Your task to perform on an android device: turn on sleep mode Image 0: 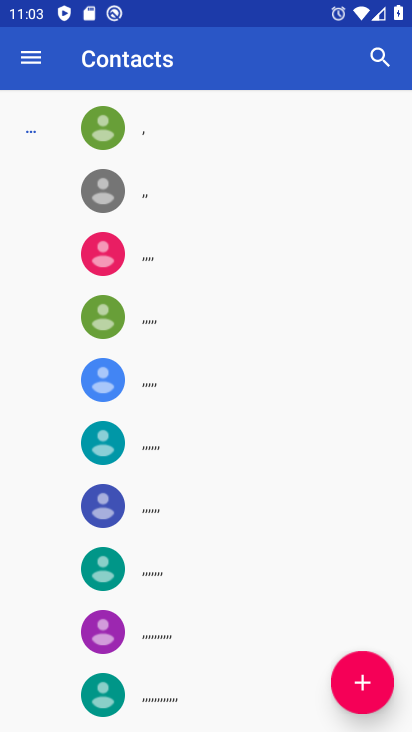
Step 0: press back button
Your task to perform on an android device: turn on sleep mode Image 1: 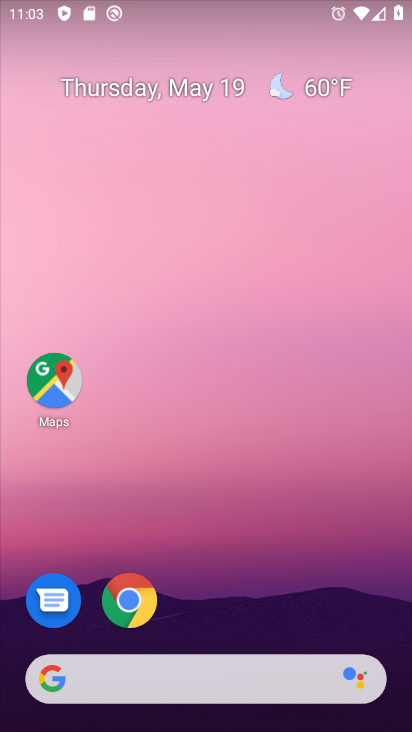
Step 1: drag from (357, 591) to (347, 282)
Your task to perform on an android device: turn on sleep mode Image 2: 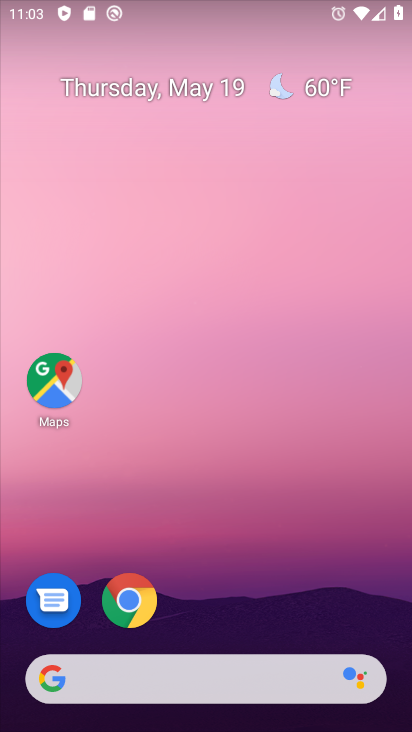
Step 2: drag from (329, 617) to (345, 254)
Your task to perform on an android device: turn on sleep mode Image 3: 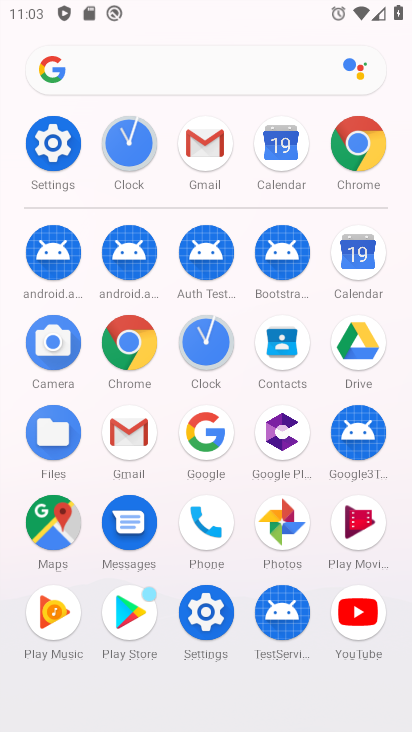
Step 3: click (208, 632)
Your task to perform on an android device: turn on sleep mode Image 4: 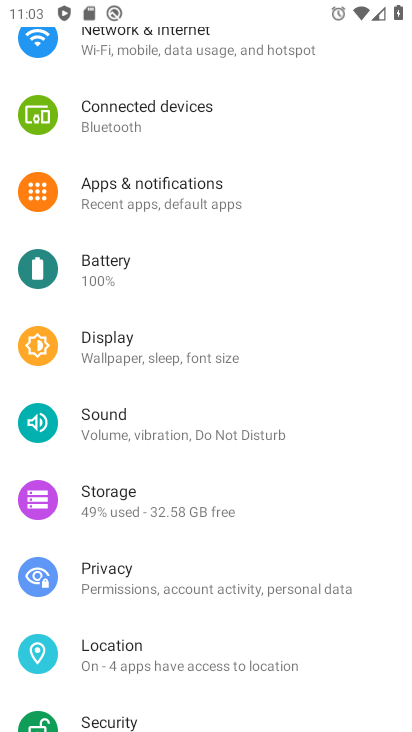
Step 4: drag from (367, 631) to (342, 463)
Your task to perform on an android device: turn on sleep mode Image 5: 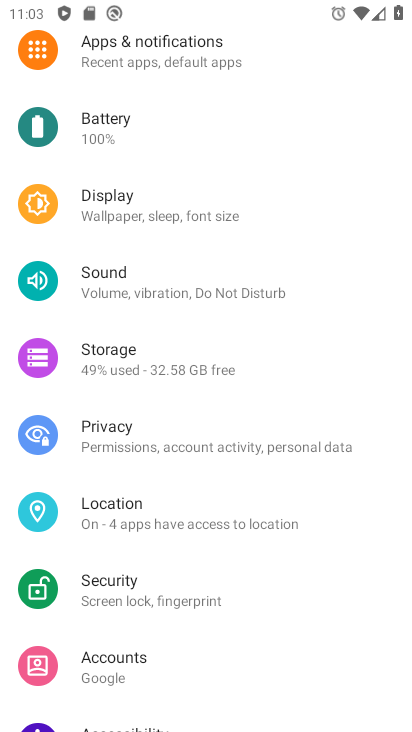
Step 5: drag from (367, 618) to (362, 512)
Your task to perform on an android device: turn on sleep mode Image 6: 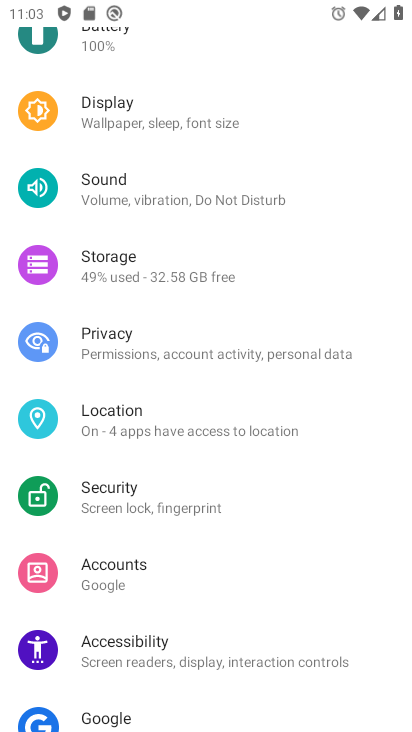
Step 6: drag from (341, 649) to (348, 539)
Your task to perform on an android device: turn on sleep mode Image 7: 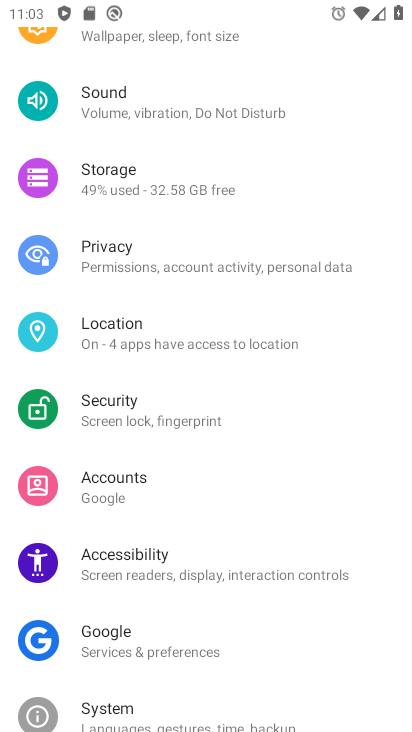
Step 7: drag from (365, 687) to (370, 591)
Your task to perform on an android device: turn on sleep mode Image 8: 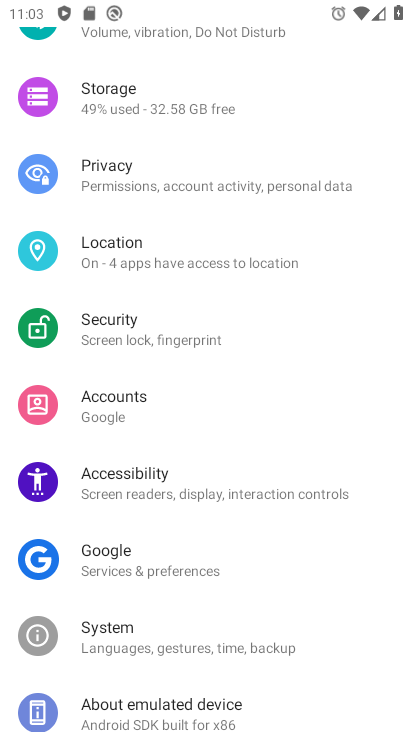
Step 8: drag from (365, 683) to (369, 589)
Your task to perform on an android device: turn on sleep mode Image 9: 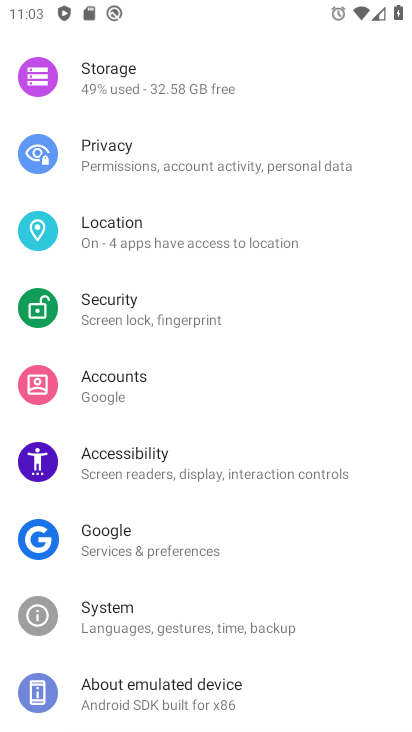
Step 9: drag from (338, 414) to (341, 498)
Your task to perform on an android device: turn on sleep mode Image 10: 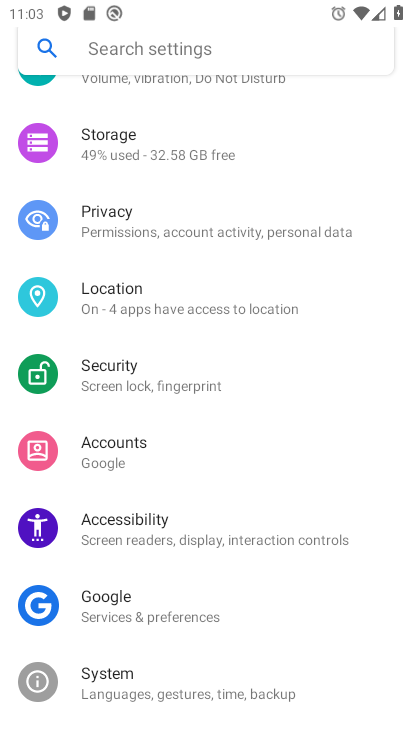
Step 10: drag from (328, 410) to (338, 467)
Your task to perform on an android device: turn on sleep mode Image 11: 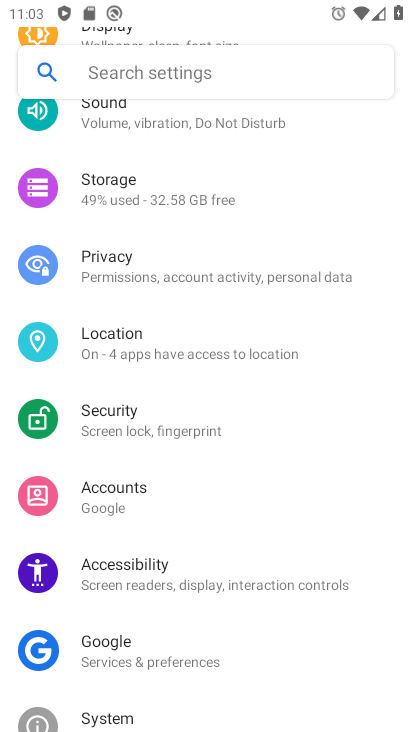
Step 11: drag from (334, 427) to (339, 465)
Your task to perform on an android device: turn on sleep mode Image 12: 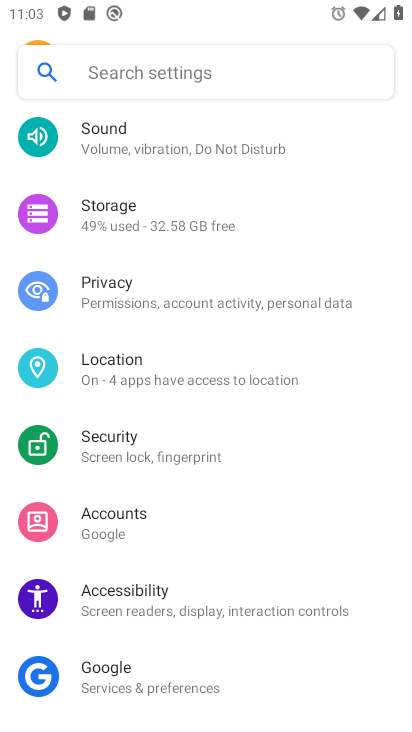
Step 12: click (338, 460)
Your task to perform on an android device: turn on sleep mode Image 13: 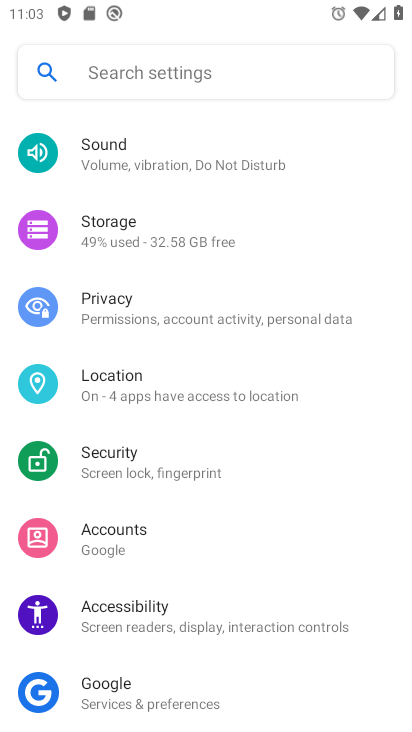
Step 13: drag from (328, 403) to (344, 496)
Your task to perform on an android device: turn on sleep mode Image 14: 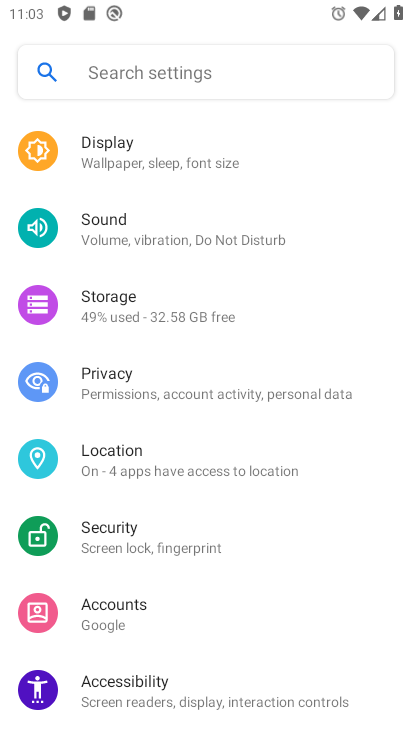
Step 14: drag from (345, 377) to (352, 431)
Your task to perform on an android device: turn on sleep mode Image 15: 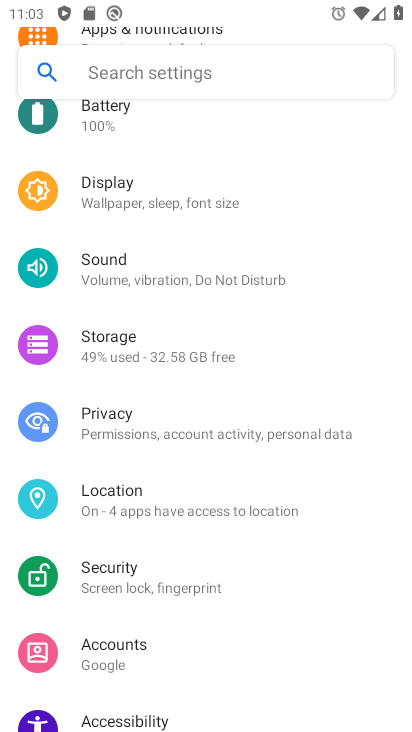
Step 15: drag from (350, 373) to (350, 437)
Your task to perform on an android device: turn on sleep mode Image 16: 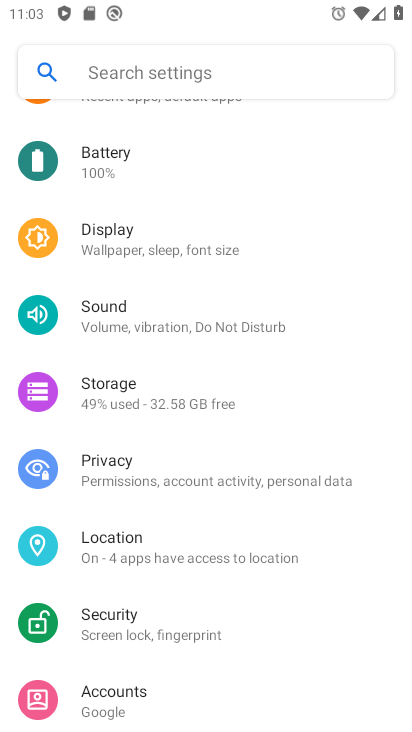
Step 16: drag from (341, 390) to (341, 426)
Your task to perform on an android device: turn on sleep mode Image 17: 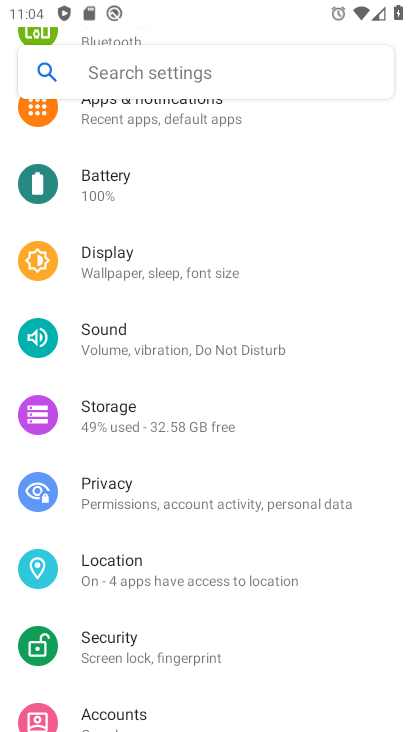
Step 17: drag from (328, 358) to (345, 452)
Your task to perform on an android device: turn on sleep mode Image 18: 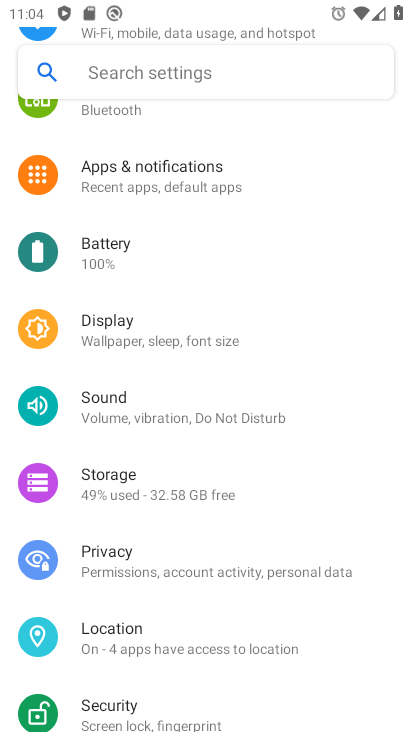
Step 18: drag from (323, 361) to (331, 397)
Your task to perform on an android device: turn on sleep mode Image 19: 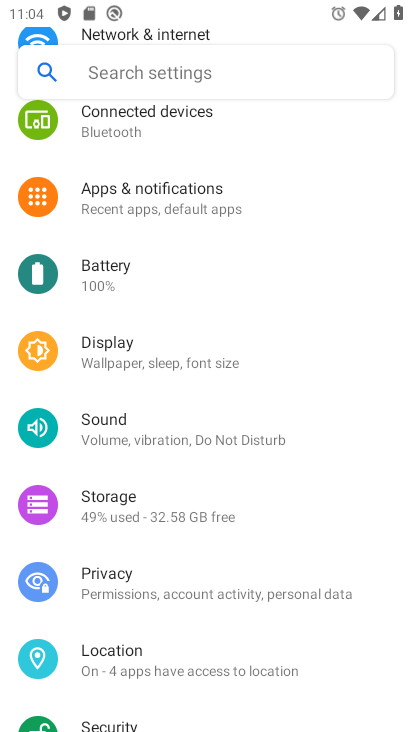
Step 19: drag from (334, 357) to (346, 413)
Your task to perform on an android device: turn on sleep mode Image 20: 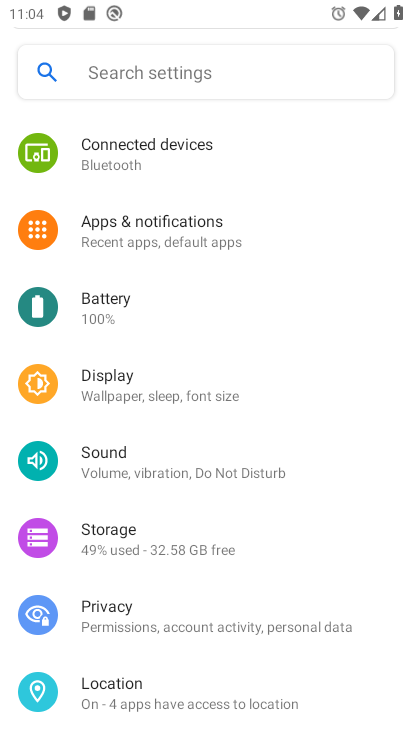
Step 20: drag from (352, 364) to (370, 459)
Your task to perform on an android device: turn on sleep mode Image 21: 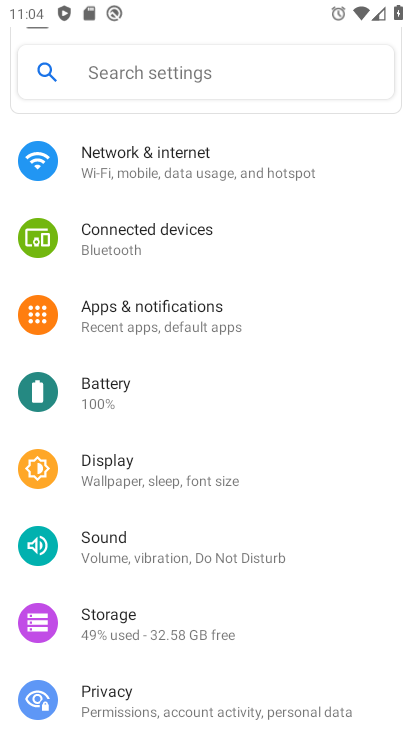
Step 21: click (253, 470)
Your task to perform on an android device: turn on sleep mode Image 22: 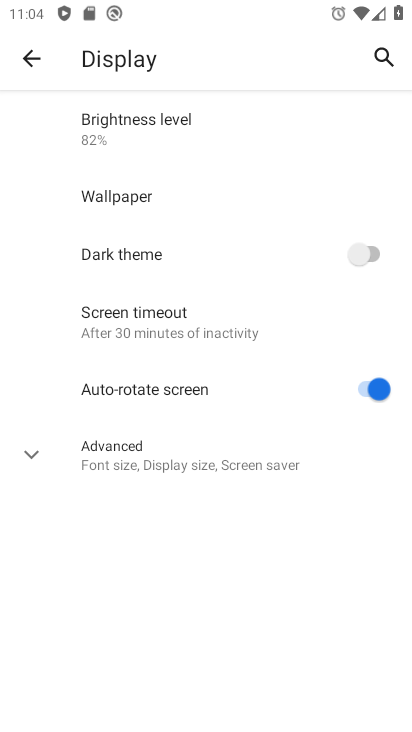
Step 22: click (243, 461)
Your task to perform on an android device: turn on sleep mode Image 23: 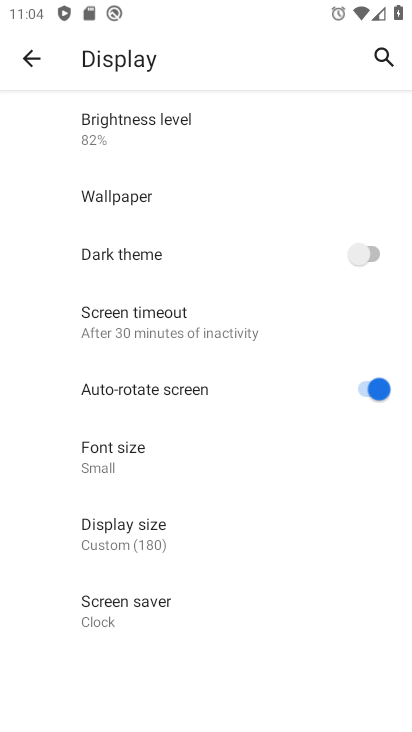
Step 23: task complete